Your task to perform on an android device: Open Google Chrome Image 0: 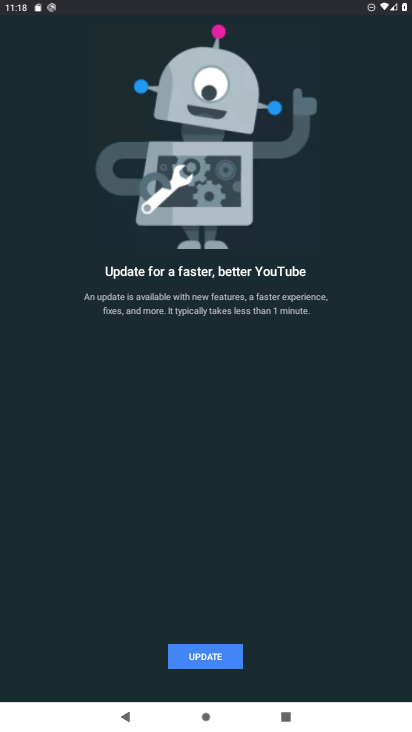
Step 0: press home button
Your task to perform on an android device: Open Google Chrome Image 1: 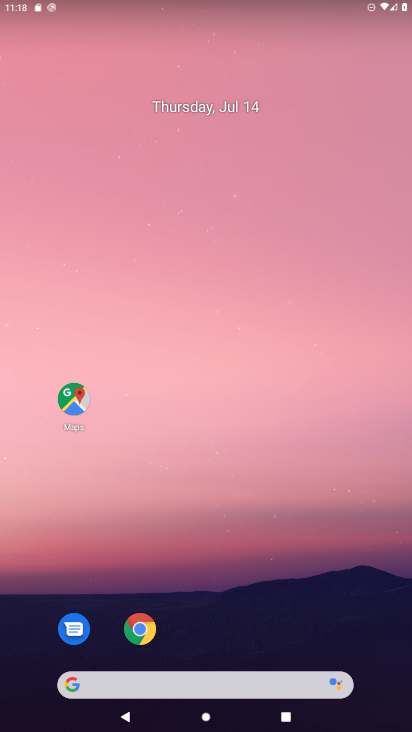
Step 1: click (138, 626)
Your task to perform on an android device: Open Google Chrome Image 2: 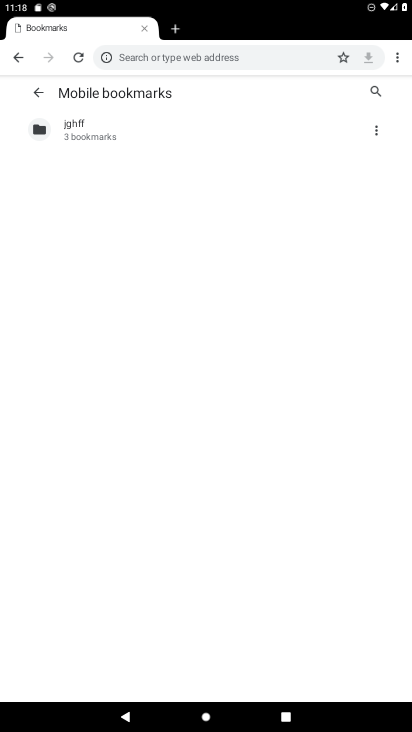
Step 2: task complete